Your task to perform on an android device: turn off data saver in the chrome app Image 0: 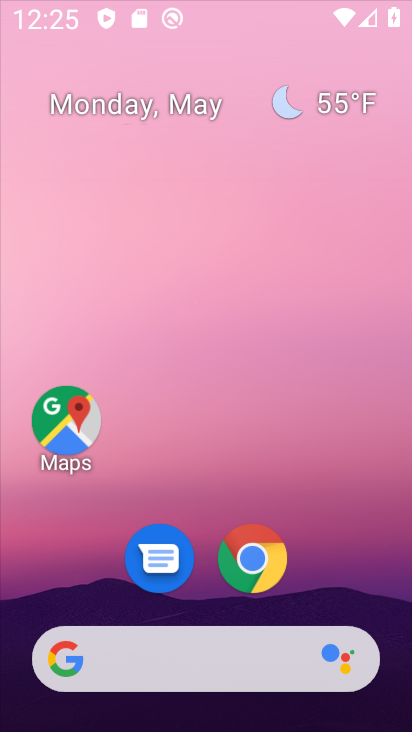
Step 0: drag from (331, 569) to (211, 38)
Your task to perform on an android device: turn off data saver in the chrome app Image 1: 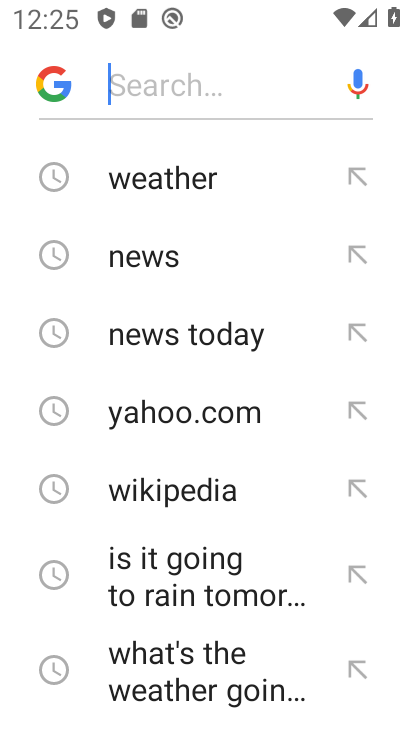
Step 1: press back button
Your task to perform on an android device: turn off data saver in the chrome app Image 2: 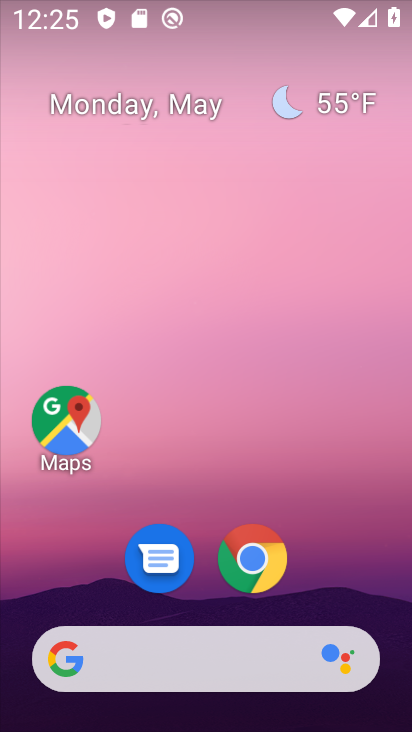
Step 2: click (251, 554)
Your task to perform on an android device: turn off data saver in the chrome app Image 3: 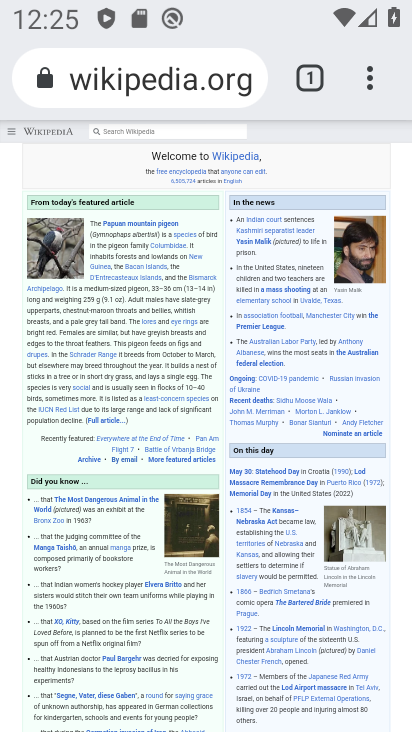
Step 3: drag from (372, 77) to (123, 618)
Your task to perform on an android device: turn off data saver in the chrome app Image 4: 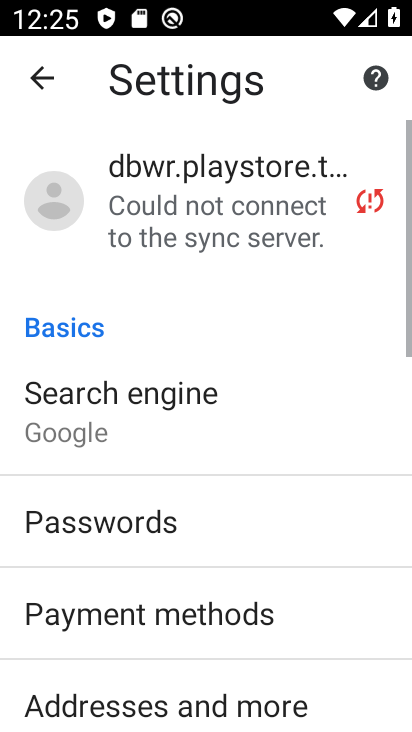
Step 4: drag from (265, 605) to (259, 186)
Your task to perform on an android device: turn off data saver in the chrome app Image 5: 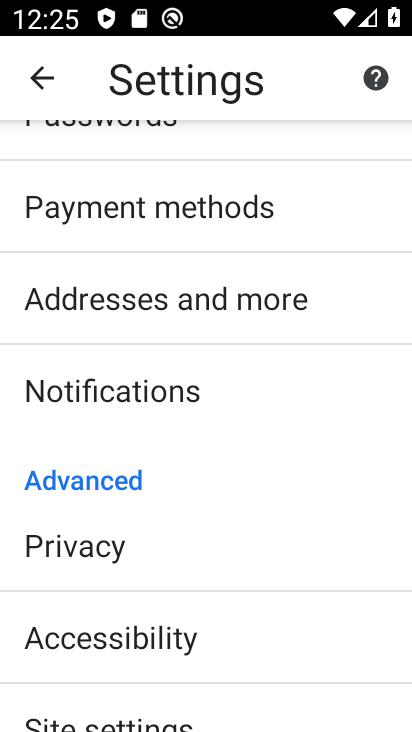
Step 5: drag from (261, 575) to (283, 144)
Your task to perform on an android device: turn off data saver in the chrome app Image 6: 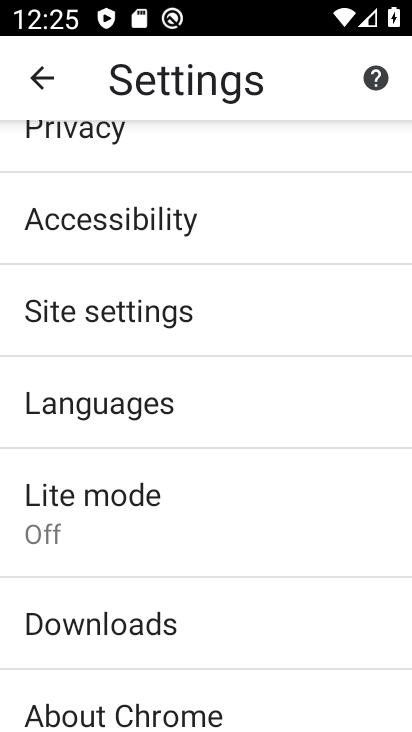
Step 6: drag from (248, 597) to (240, 187)
Your task to perform on an android device: turn off data saver in the chrome app Image 7: 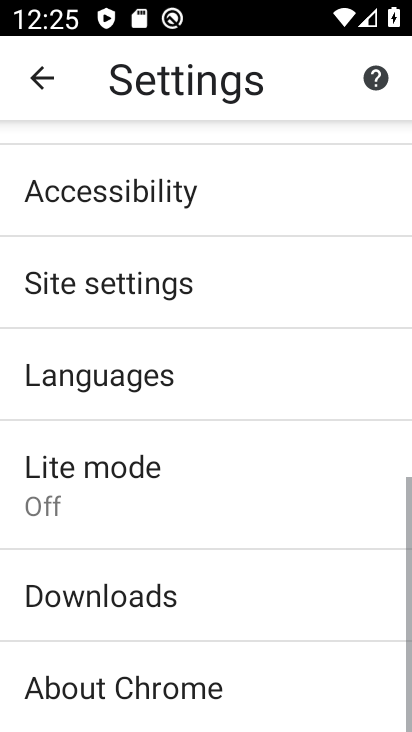
Step 7: drag from (240, 560) to (263, 253)
Your task to perform on an android device: turn off data saver in the chrome app Image 8: 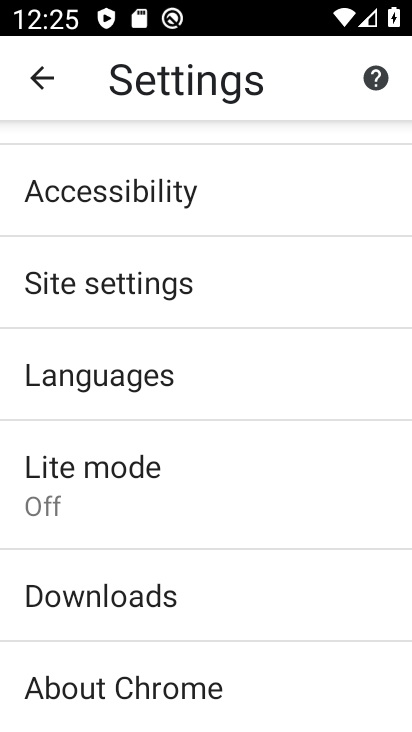
Step 8: drag from (243, 591) to (225, 231)
Your task to perform on an android device: turn off data saver in the chrome app Image 9: 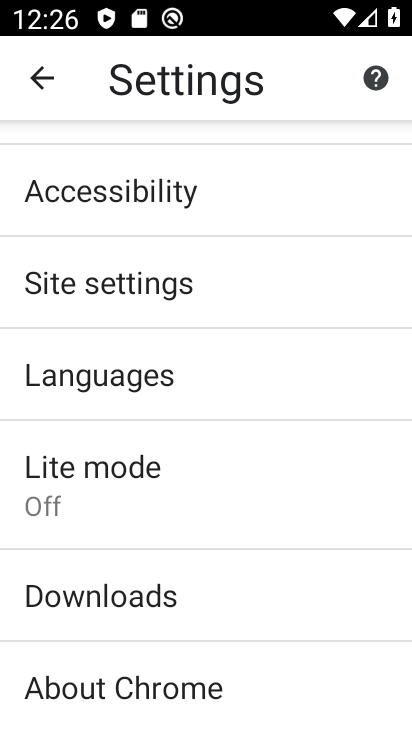
Step 9: click (221, 467)
Your task to perform on an android device: turn off data saver in the chrome app Image 10: 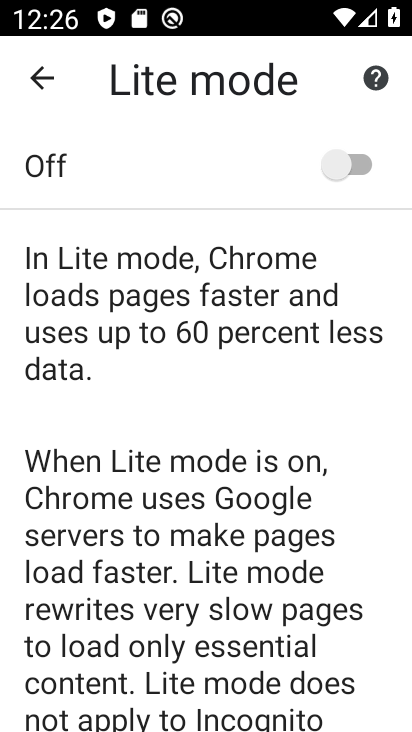
Step 10: task complete